Your task to perform on an android device: open chrome and create a bookmark for the current page Image 0: 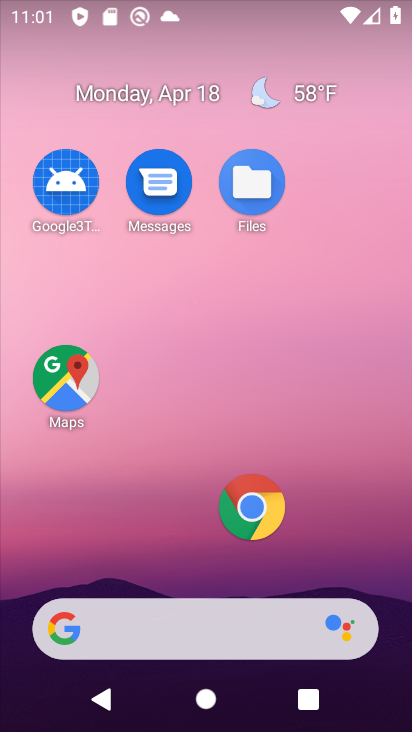
Step 0: click (237, 518)
Your task to perform on an android device: open chrome and create a bookmark for the current page Image 1: 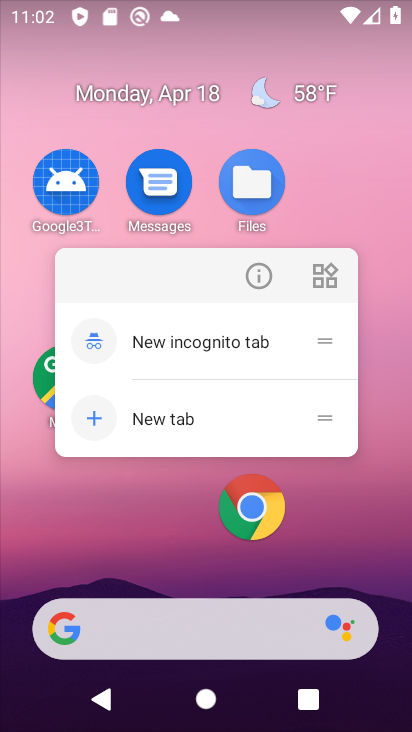
Step 1: click (248, 517)
Your task to perform on an android device: open chrome and create a bookmark for the current page Image 2: 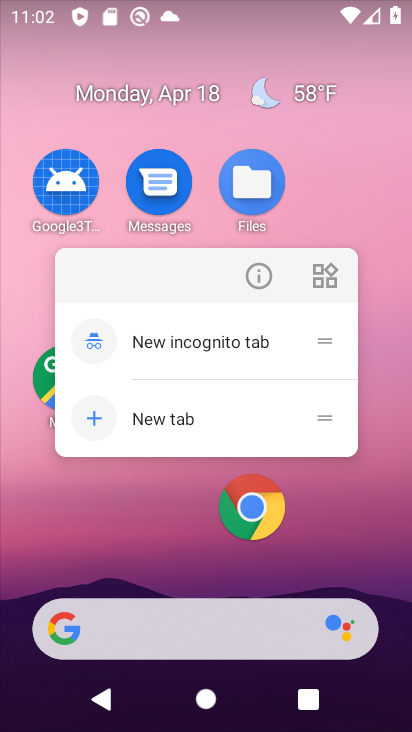
Step 2: click (247, 516)
Your task to perform on an android device: open chrome and create a bookmark for the current page Image 3: 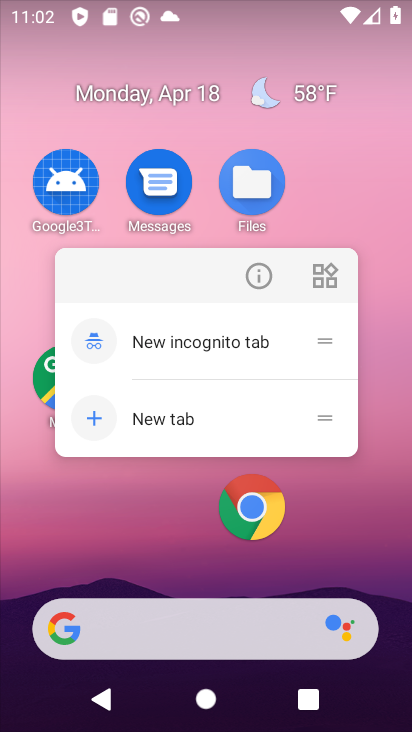
Step 3: click (247, 516)
Your task to perform on an android device: open chrome and create a bookmark for the current page Image 4: 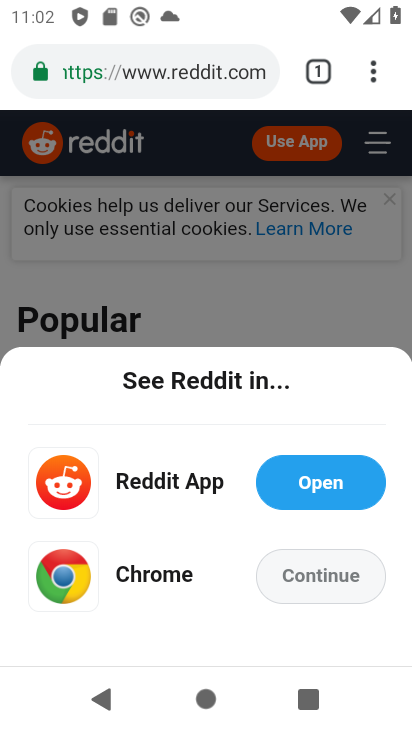
Step 4: click (369, 81)
Your task to perform on an android device: open chrome and create a bookmark for the current page Image 5: 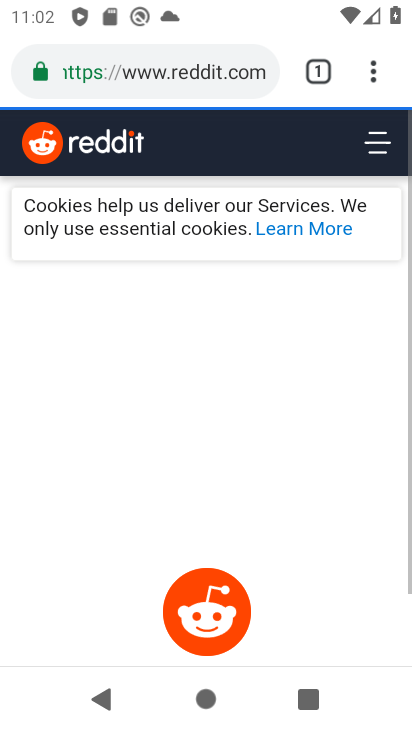
Step 5: click (369, 81)
Your task to perform on an android device: open chrome and create a bookmark for the current page Image 6: 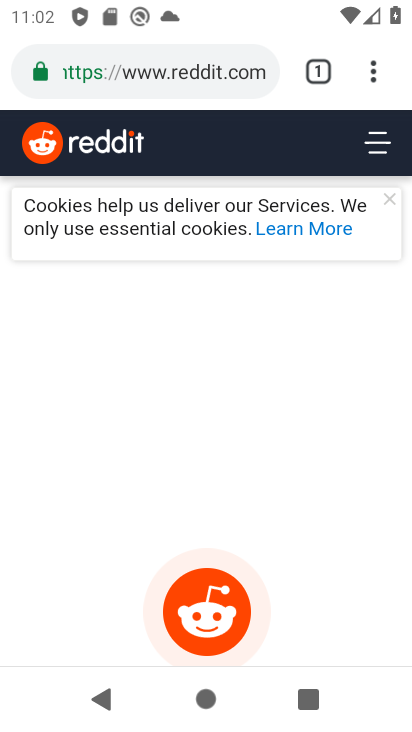
Step 6: click (373, 66)
Your task to perform on an android device: open chrome and create a bookmark for the current page Image 7: 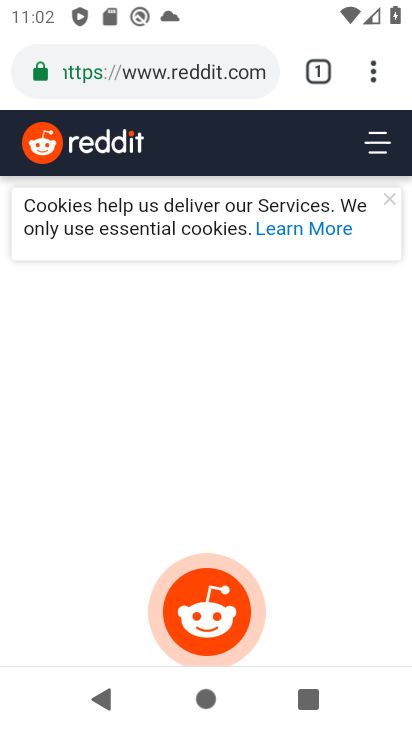
Step 7: click (364, 82)
Your task to perform on an android device: open chrome and create a bookmark for the current page Image 8: 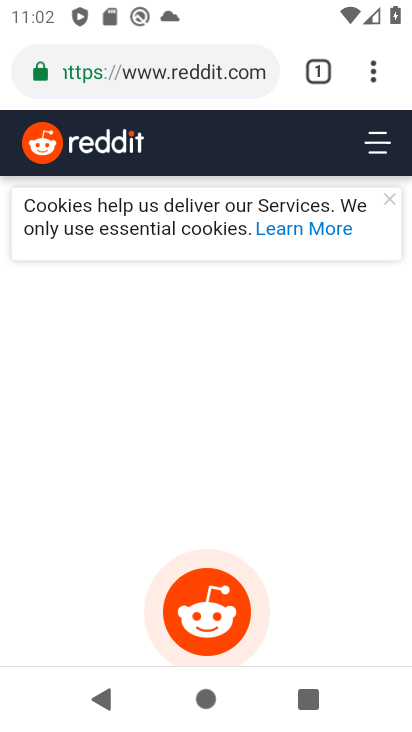
Step 8: click (362, 74)
Your task to perform on an android device: open chrome and create a bookmark for the current page Image 9: 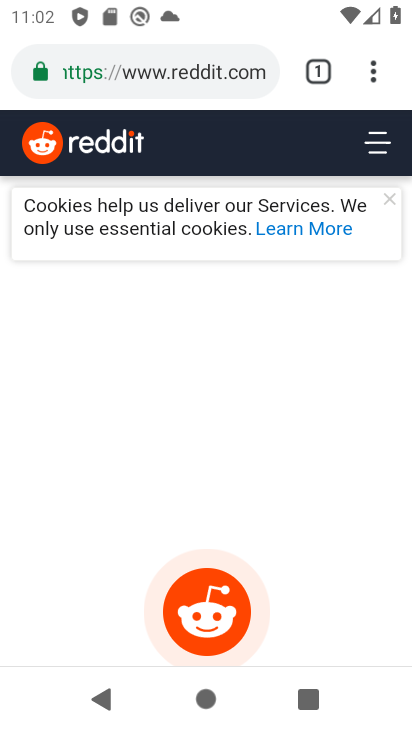
Step 9: click (351, 66)
Your task to perform on an android device: open chrome and create a bookmark for the current page Image 10: 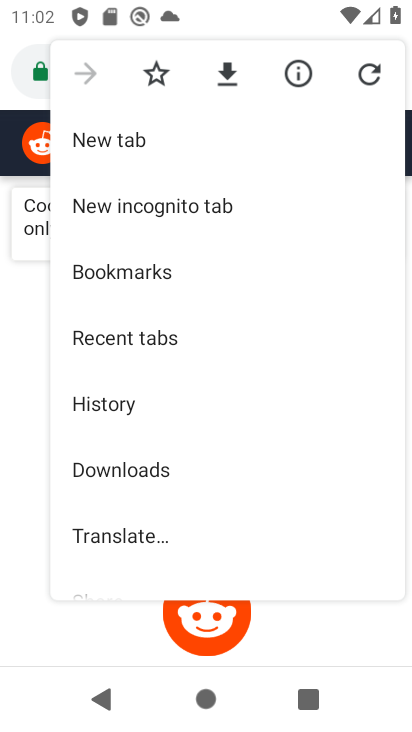
Step 10: click (155, 64)
Your task to perform on an android device: open chrome and create a bookmark for the current page Image 11: 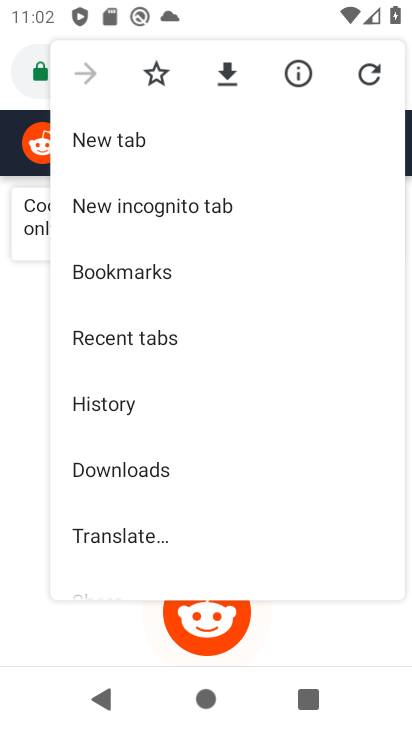
Step 11: click (160, 77)
Your task to perform on an android device: open chrome and create a bookmark for the current page Image 12: 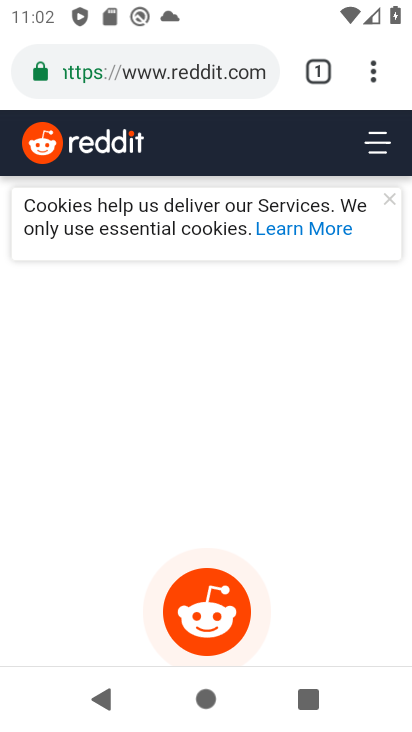
Step 12: task complete